Your task to perform on an android device: Open calendar and show me the first week of next month Image 0: 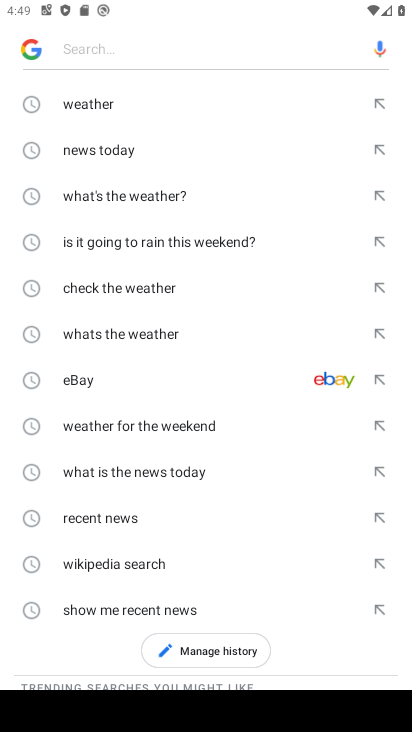
Step 0: press home button
Your task to perform on an android device: Open calendar and show me the first week of next month Image 1: 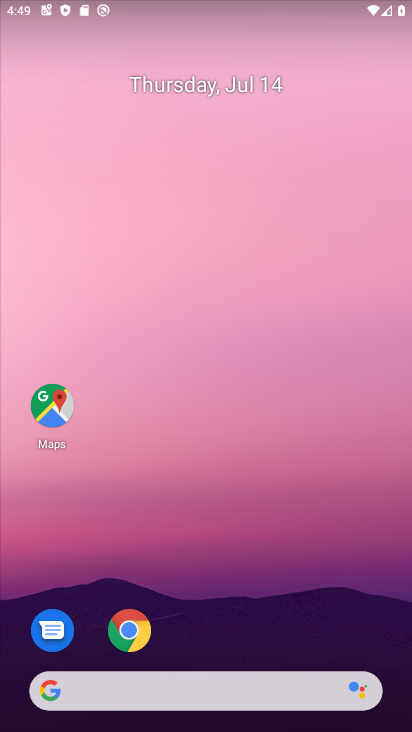
Step 1: drag from (276, 625) to (311, 247)
Your task to perform on an android device: Open calendar and show me the first week of next month Image 2: 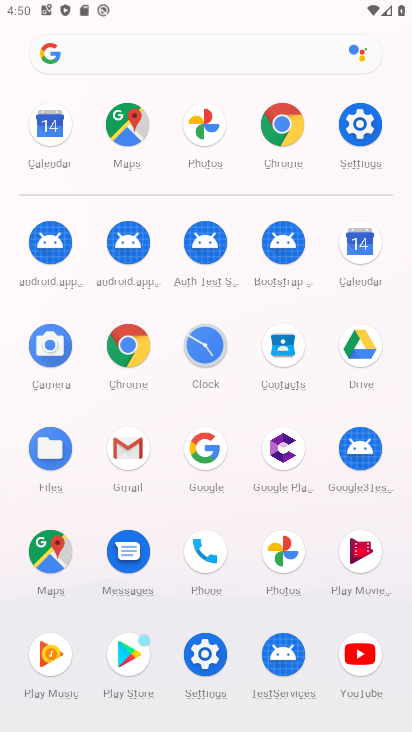
Step 2: click (373, 248)
Your task to perform on an android device: Open calendar and show me the first week of next month Image 3: 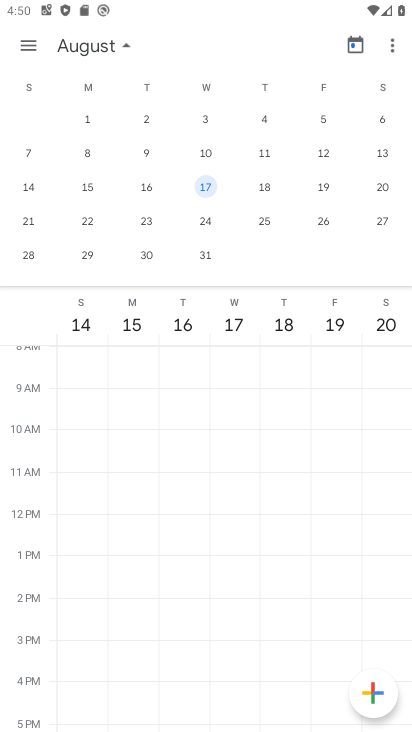
Step 3: click (205, 113)
Your task to perform on an android device: Open calendar and show me the first week of next month Image 4: 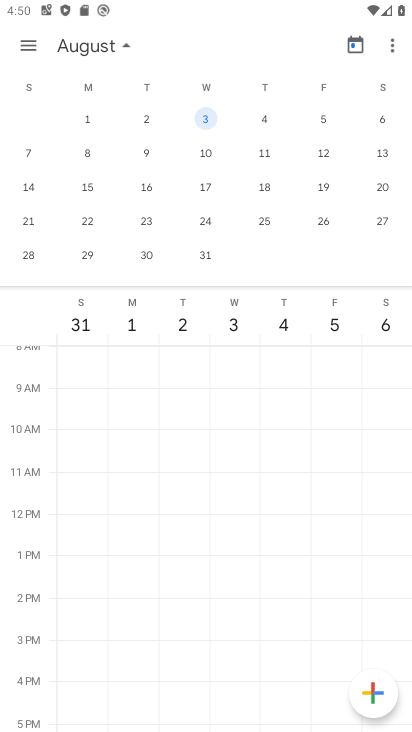
Step 4: task complete